Your task to perform on an android device: stop showing notifications on the lock screen Image 0: 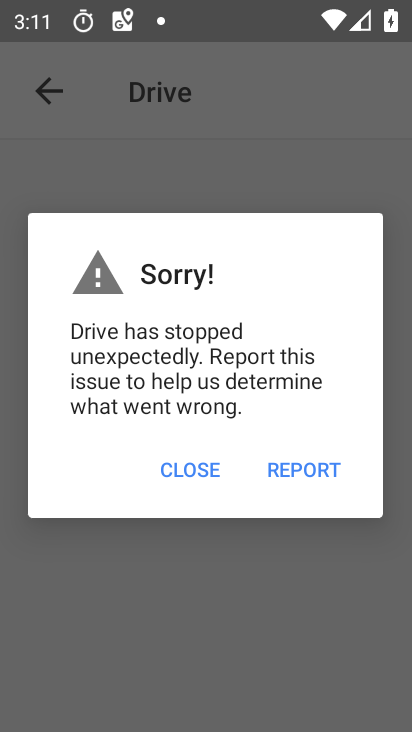
Step 0: press home button
Your task to perform on an android device: stop showing notifications on the lock screen Image 1: 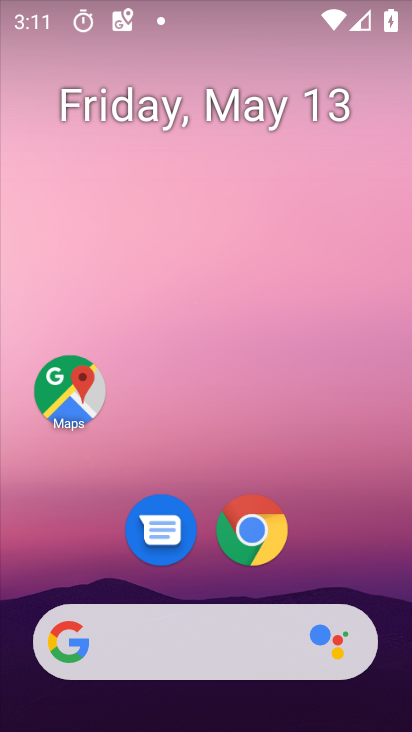
Step 1: drag from (343, 521) to (286, 127)
Your task to perform on an android device: stop showing notifications on the lock screen Image 2: 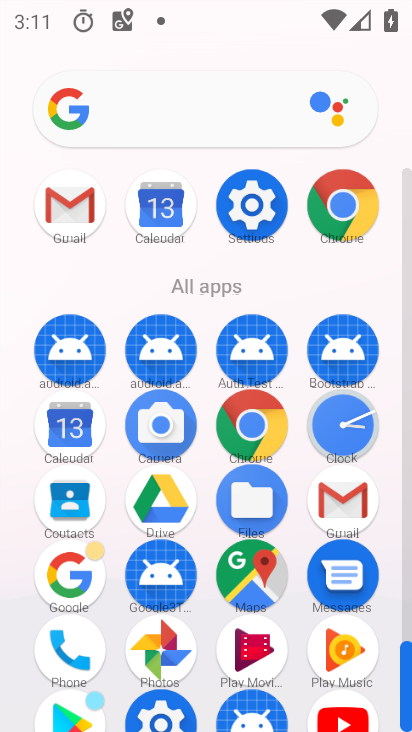
Step 2: click (246, 205)
Your task to perform on an android device: stop showing notifications on the lock screen Image 3: 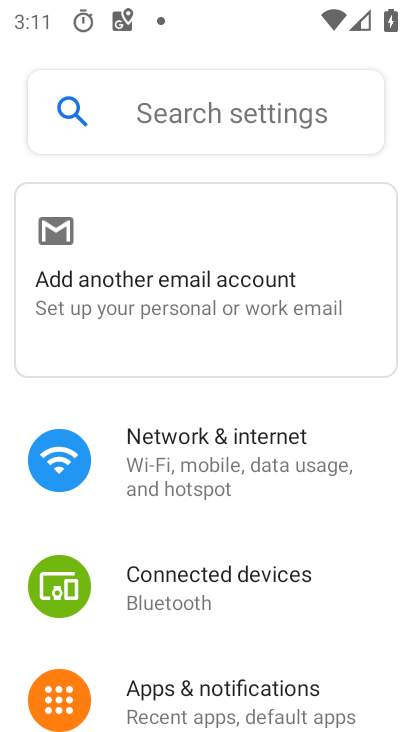
Step 3: drag from (239, 540) to (251, 323)
Your task to perform on an android device: stop showing notifications on the lock screen Image 4: 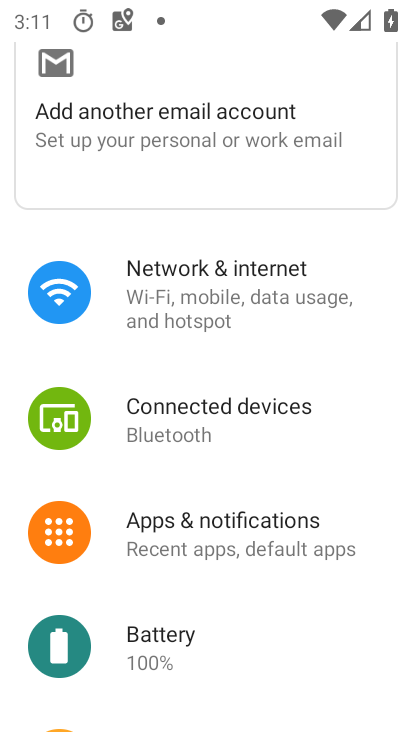
Step 4: click (165, 543)
Your task to perform on an android device: stop showing notifications on the lock screen Image 5: 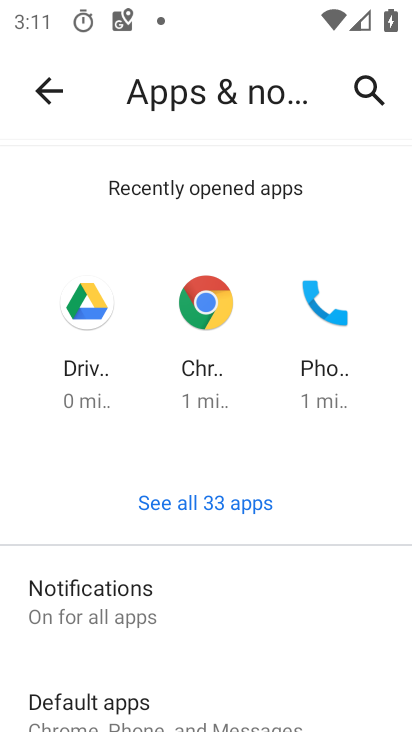
Step 5: drag from (182, 605) to (209, 225)
Your task to perform on an android device: stop showing notifications on the lock screen Image 6: 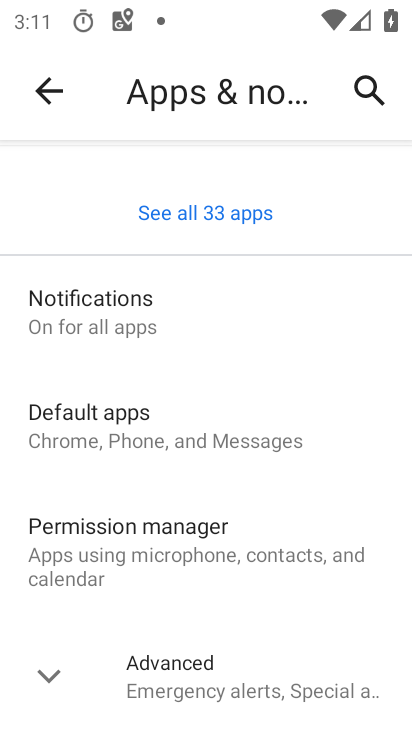
Step 6: click (107, 326)
Your task to perform on an android device: stop showing notifications on the lock screen Image 7: 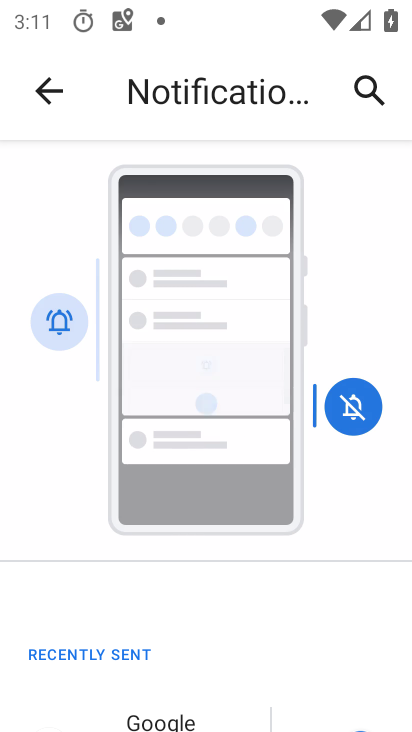
Step 7: drag from (254, 665) to (268, 251)
Your task to perform on an android device: stop showing notifications on the lock screen Image 8: 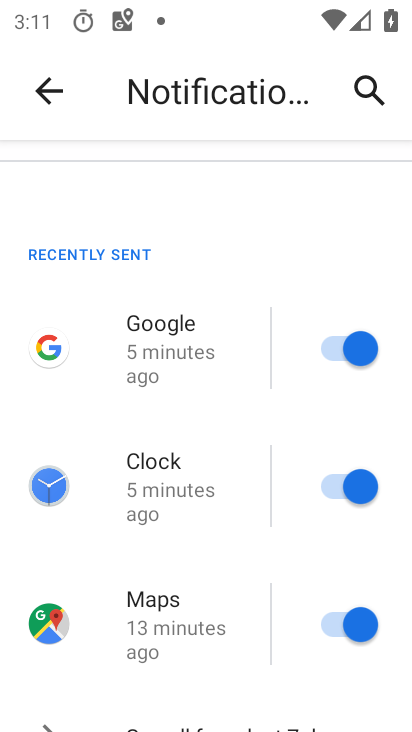
Step 8: drag from (217, 585) to (232, 245)
Your task to perform on an android device: stop showing notifications on the lock screen Image 9: 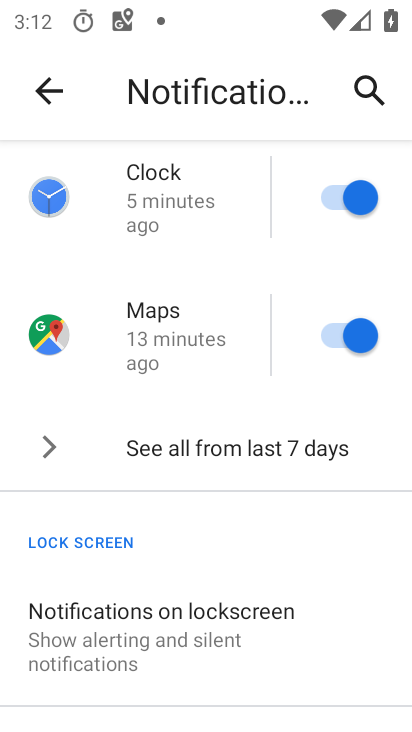
Step 9: drag from (221, 652) to (231, 296)
Your task to perform on an android device: stop showing notifications on the lock screen Image 10: 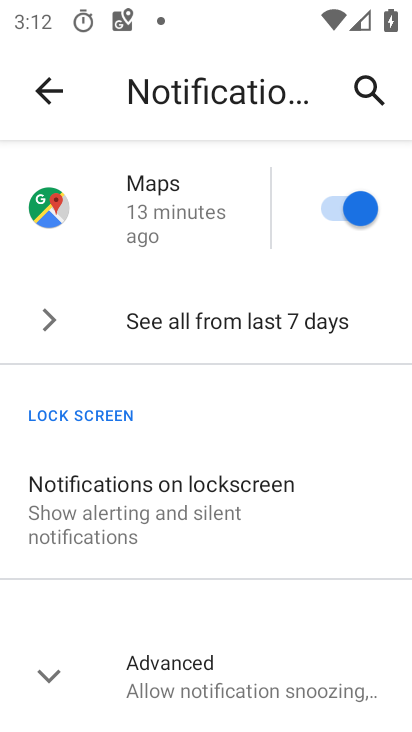
Step 10: click (255, 508)
Your task to perform on an android device: stop showing notifications on the lock screen Image 11: 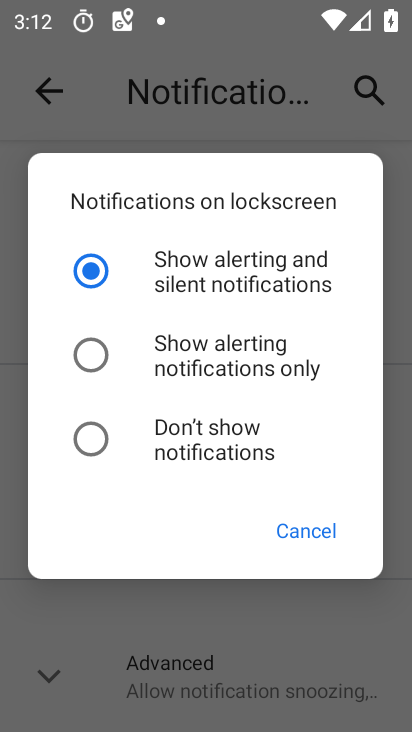
Step 11: click (236, 428)
Your task to perform on an android device: stop showing notifications on the lock screen Image 12: 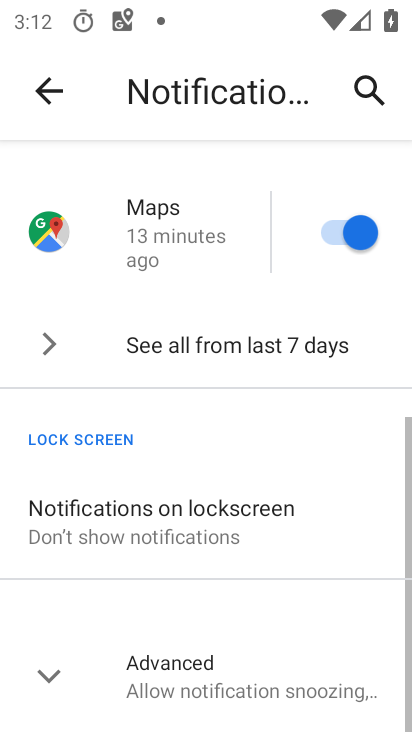
Step 12: task complete